Your task to perform on an android device: stop showing notifications on the lock screen Image 0: 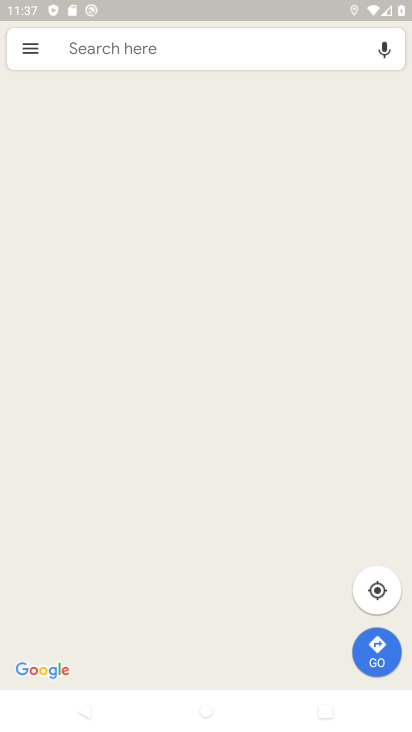
Step 0: press home button
Your task to perform on an android device: stop showing notifications on the lock screen Image 1: 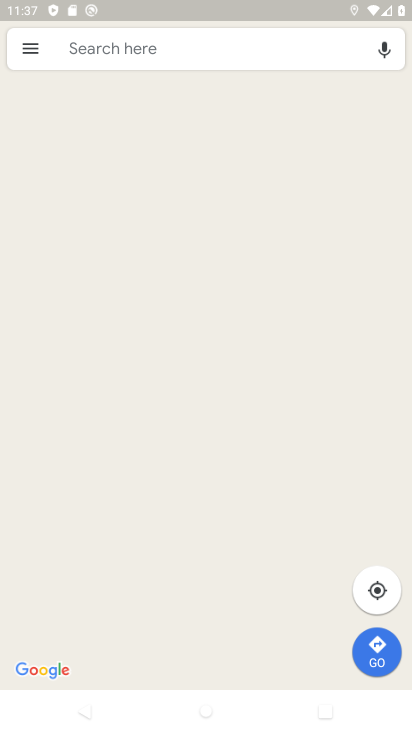
Step 1: drag from (172, 647) to (202, 570)
Your task to perform on an android device: stop showing notifications on the lock screen Image 2: 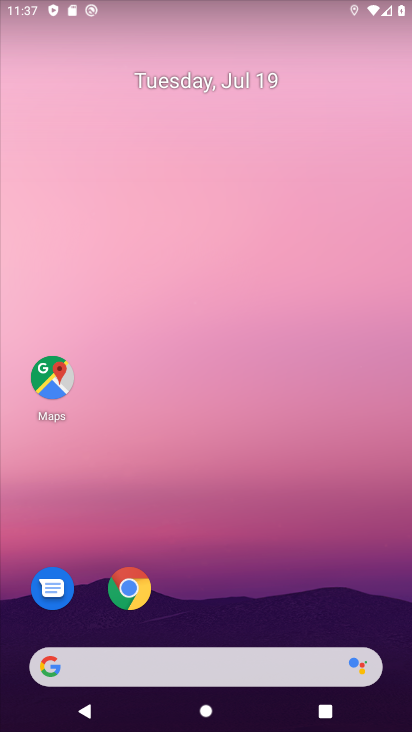
Step 2: drag from (179, 583) to (220, 162)
Your task to perform on an android device: stop showing notifications on the lock screen Image 3: 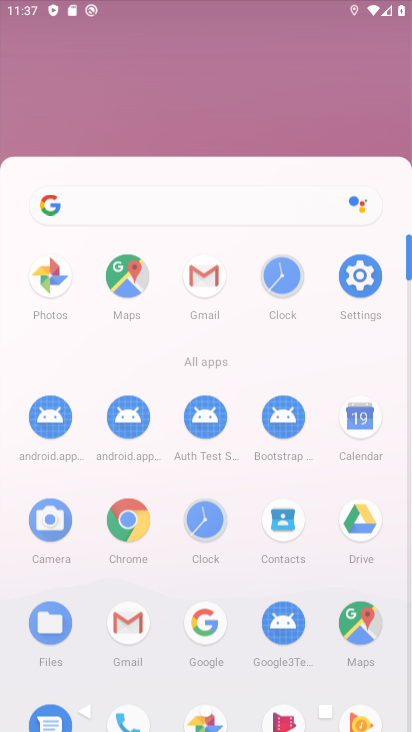
Step 3: drag from (176, 667) to (199, 262)
Your task to perform on an android device: stop showing notifications on the lock screen Image 4: 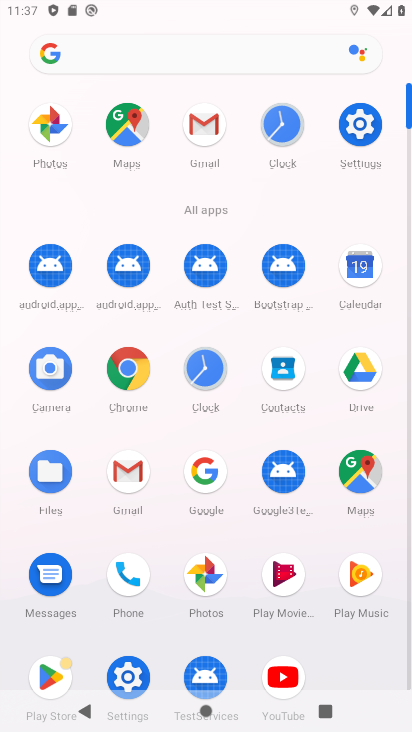
Step 4: click (343, 119)
Your task to perform on an android device: stop showing notifications on the lock screen Image 5: 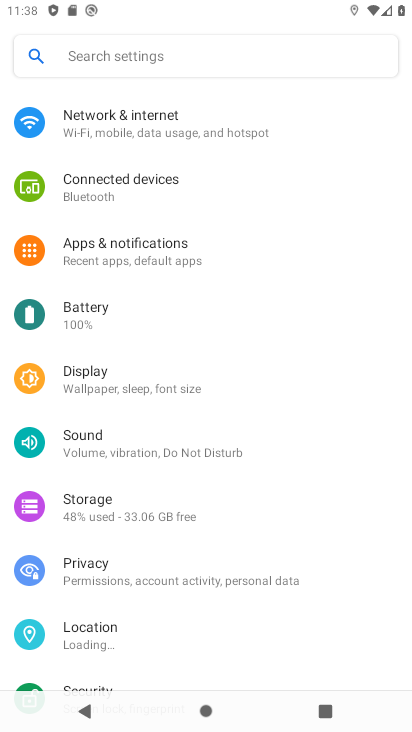
Step 5: click (128, 256)
Your task to perform on an android device: stop showing notifications on the lock screen Image 6: 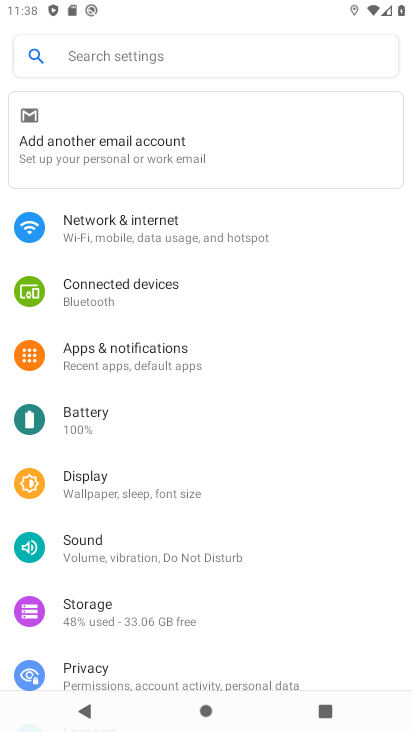
Step 6: click (99, 362)
Your task to perform on an android device: stop showing notifications on the lock screen Image 7: 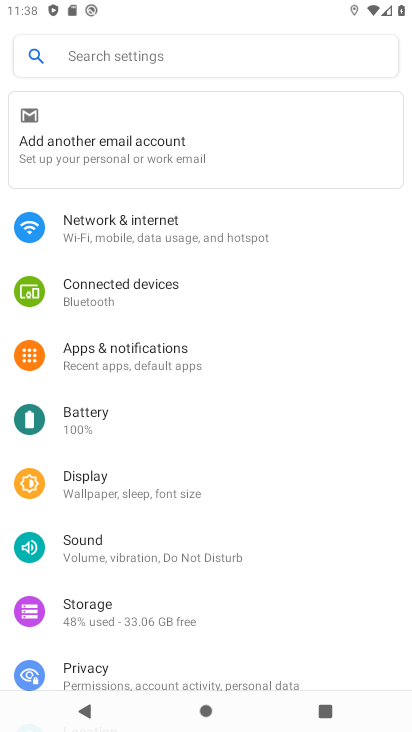
Step 7: click (136, 345)
Your task to perform on an android device: stop showing notifications on the lock screen Image 8: 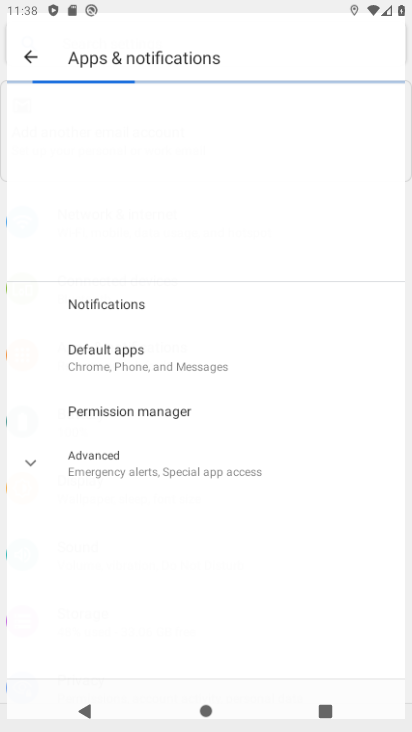
Step 8: click (136, 345)
Your task to perform on an android device: stop showing notifications on the lock screen Image 9: 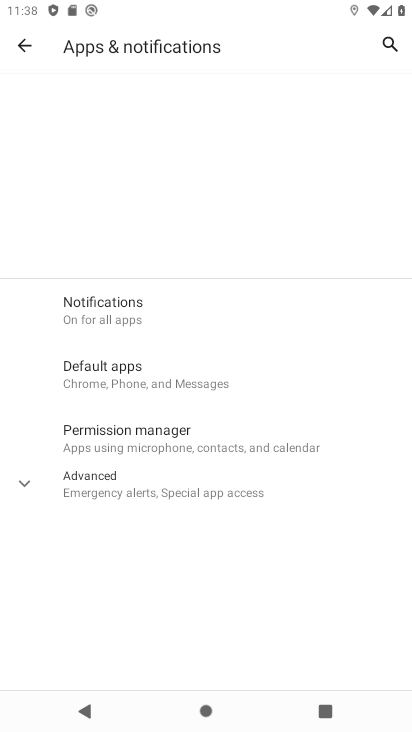
Step 9: drag from (134, 469) to (133, 312)
Your task to perform on an android device: stop showing notifications on the lock screen Image 10: 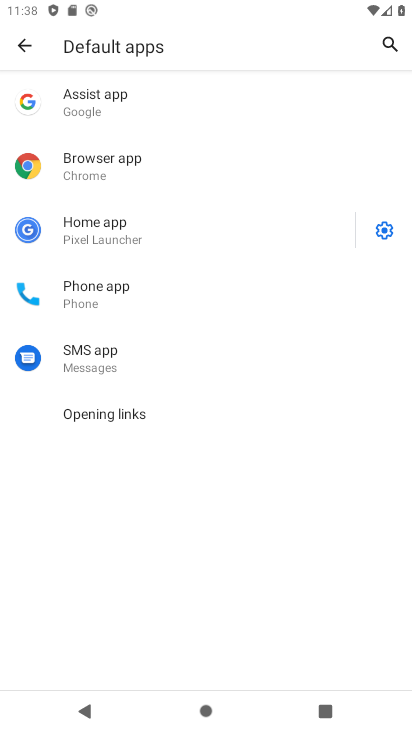
Step 10: click (133, 312)
Your task to perform on an android device: stop showing notifications on the lock screen Image 11: 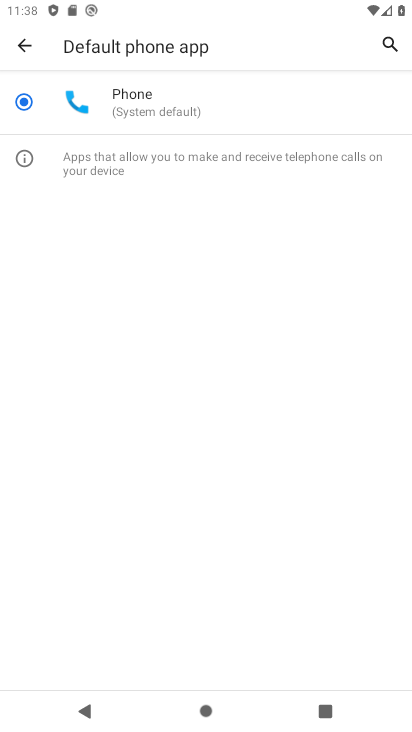
Step 11: click (13, 32)
Your task to perform on an android device: stop showing notifications on the lock screen Image 12: 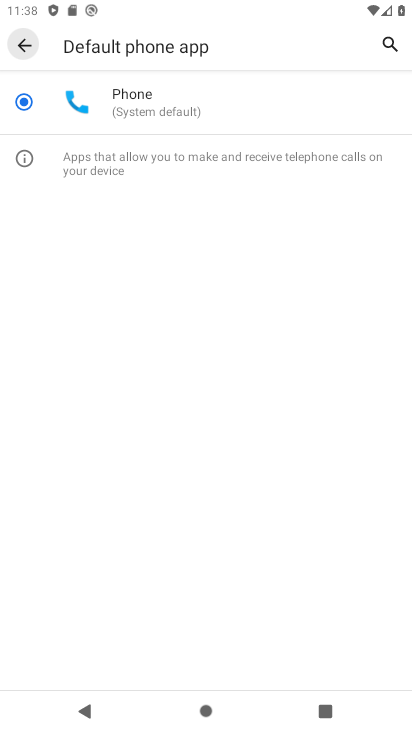
Step 12: click (19, 39)
Your task to perform on an android device: stop showing notifications on the lock screen Image 13: 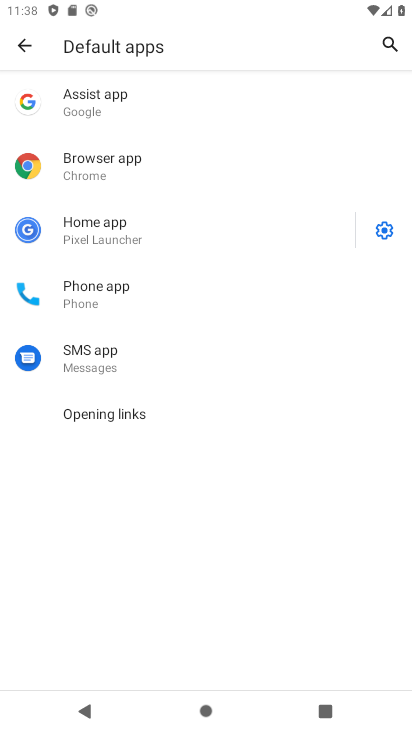
Step 13: click (36, 50)
Your task to perform on an android device: stop showing notifications on the lock screen Image 14: 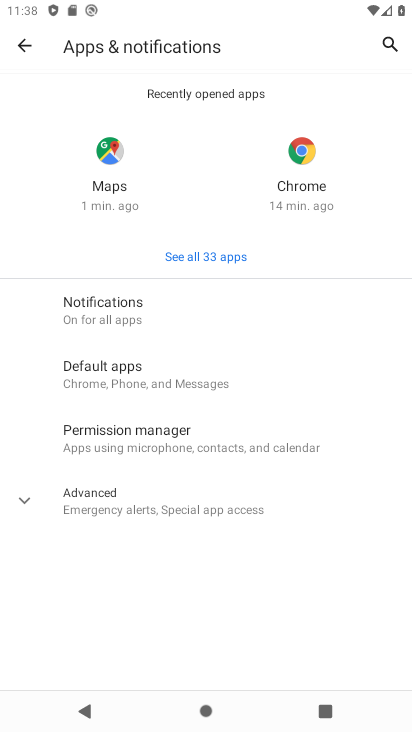
Step 14: click (111, 319)
Your task to perform on an android device: stop showing notifications on the lock screen Image 15: 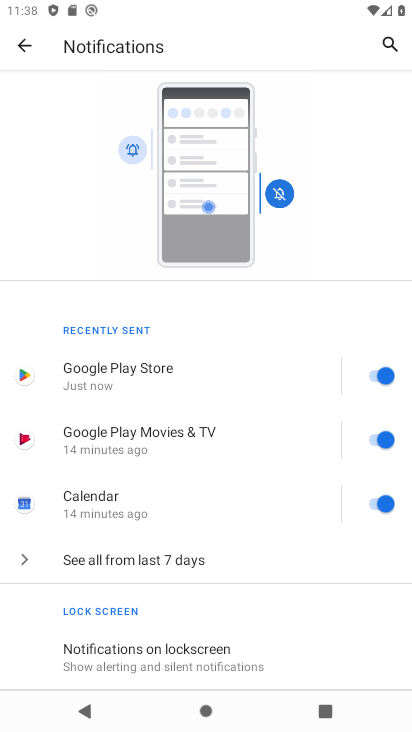
Step 15: drag from (213, 634) to (213, 407)
Your task to perform on an android device: stop showing notifications on the lock screen Image 16: 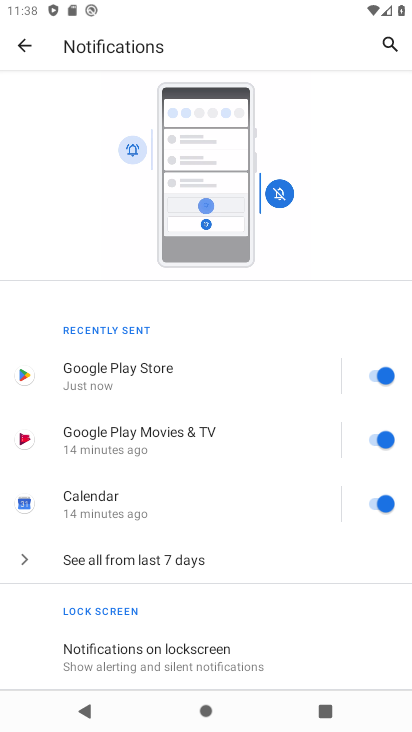
Step 16: click (173, 641)
Your task to perform on an android device: stop showing notifications on the lock screen Image 17: 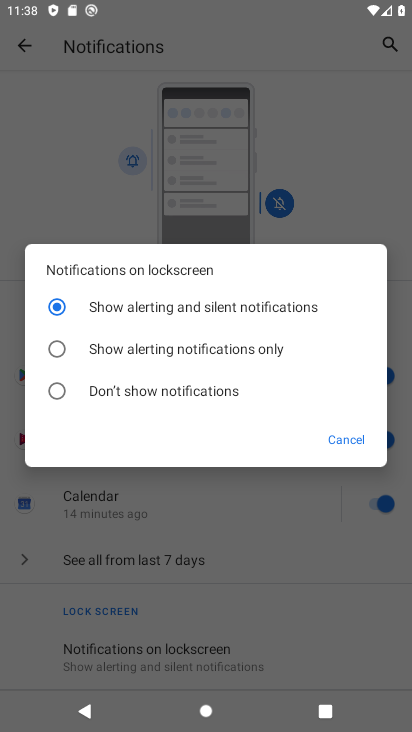
Step 17: click (134, 400)
Your task to perform on an android device: stop showing notifications on the lock screen Image 18: 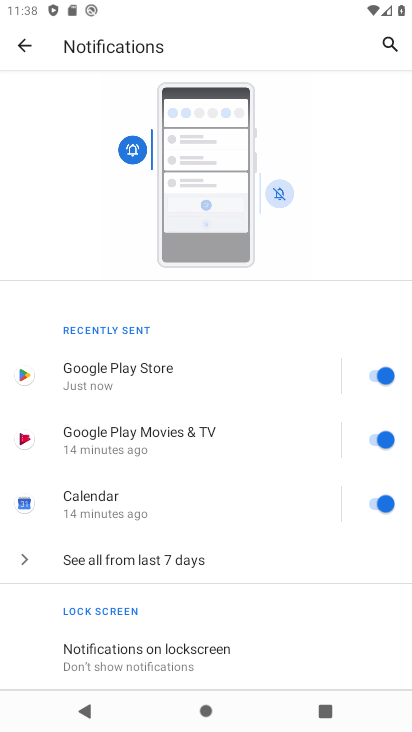
Step 18: task complete